Your task to perform on an android device: toggle pop-ups in chrome Image 0: 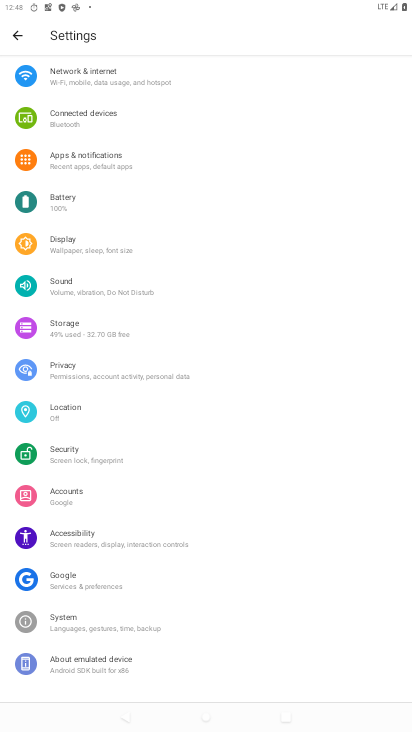
Step 0: press home button
Your task to perform on an android device: toggle pop-ups in chrome Image 1: 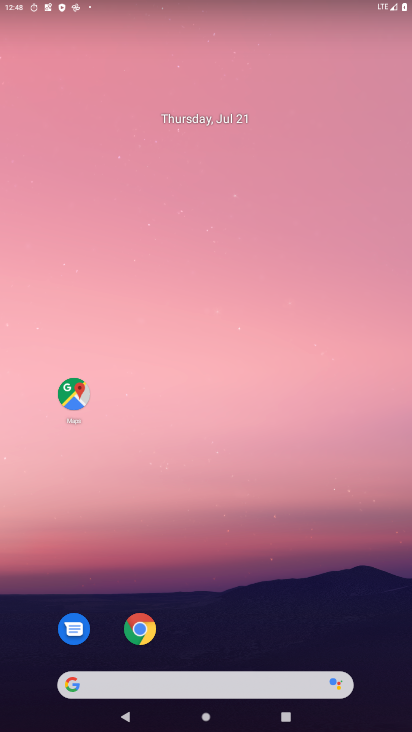
Step 1: drag from (257, 669) to (285, 81)
Your task to perform on an android device: toggle pop-ups in chrome Image 2: 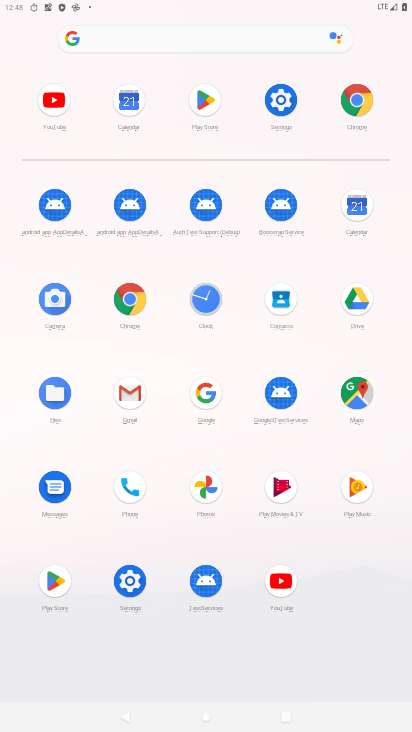
Step 2: click (128, 302)
Your task to perform on an android device: toggle pop-ups in chrome Image 3: 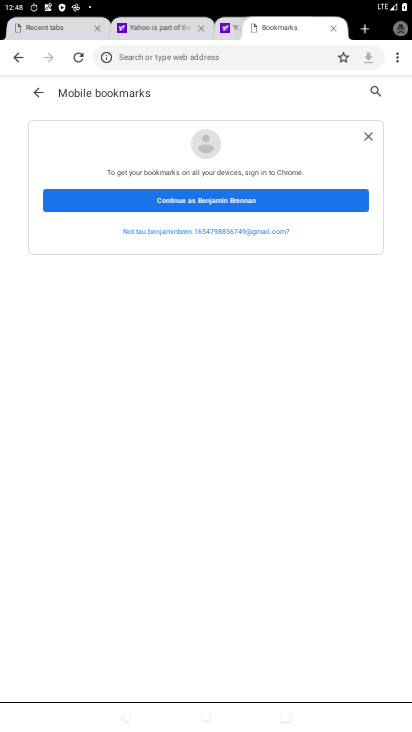
Step 3: click (398, 60)
Your task to perform on an android device: toggle pop-ups in chrome Image 4: 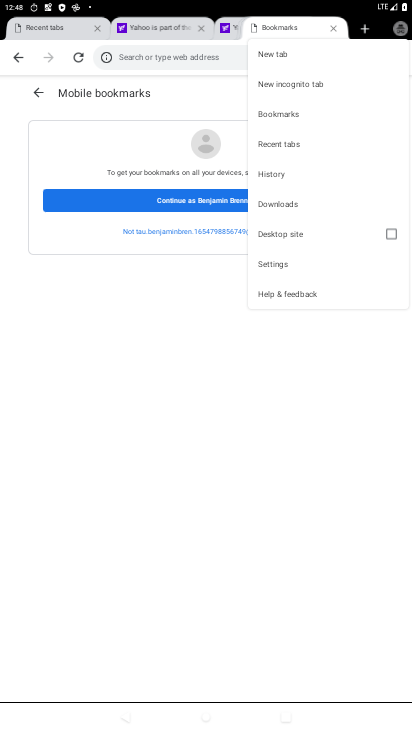
Step 4: click (306, 264)
Your task to perform on an android device: toggle pop-ups in chrome Image 5: 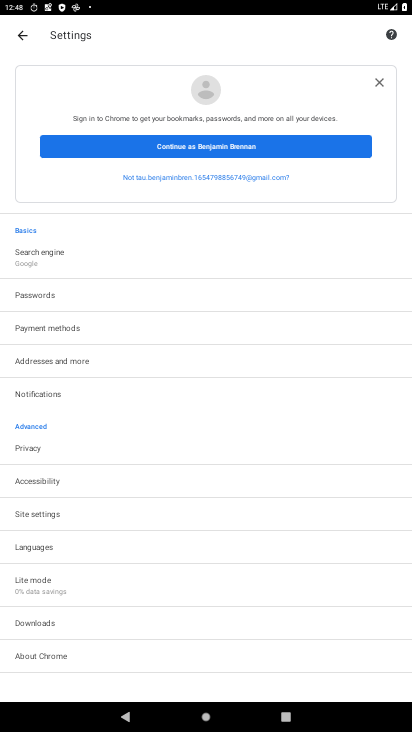
Step 5: click (53, 507)
Your task to perform on an android device: toggle pop-ups in chrome Image 6: 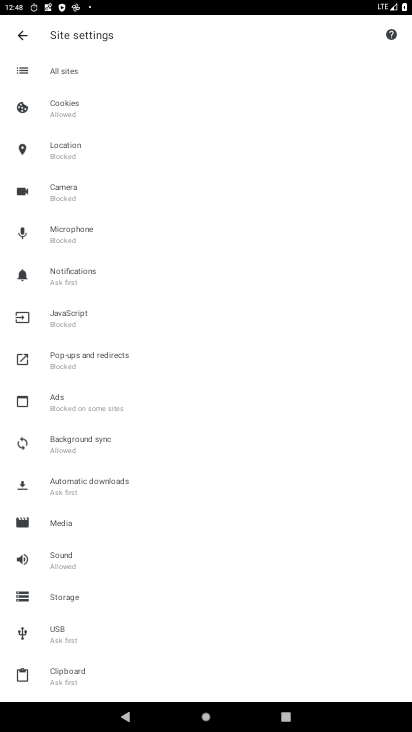
Step 6: click (91, 369)
Your task to perform on an android device: toggle pop-ups in chrome Image 7: 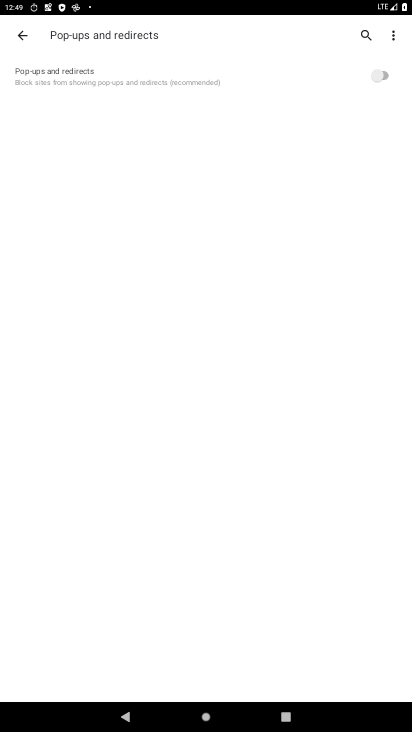
Step 7: click (386, 80)
Your task to perform on an android device: toggle pop-ups in chrome Image 8: 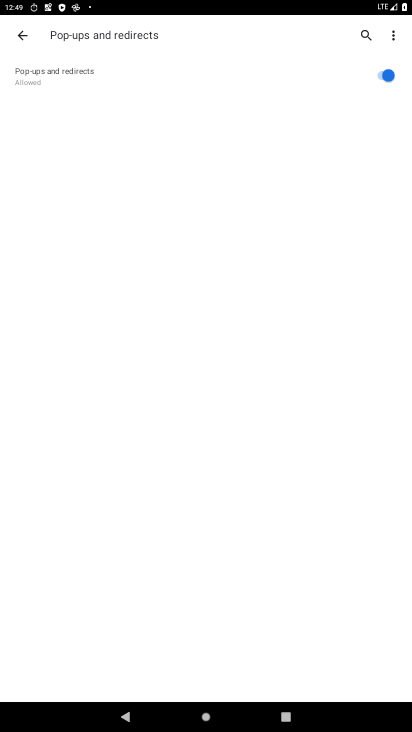
Step 8: task complete